Your task to perform on an android device: Show me popular videos on Youtube Image 0: 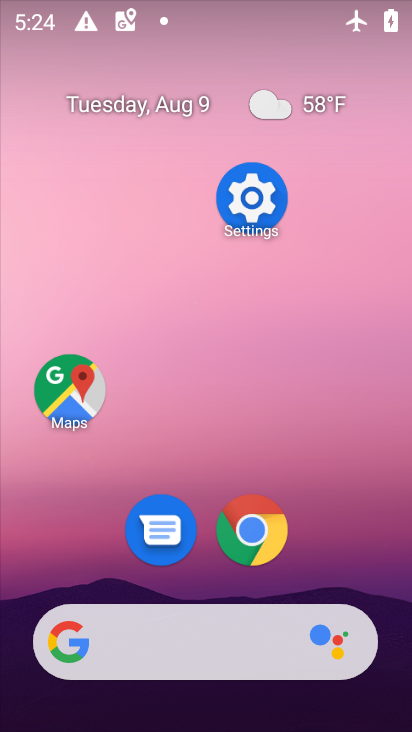
Step 0: drag from (255, 488) to (346, 131)
Your task to perform on an android device: Show me popular videos on Youtube Image 1: 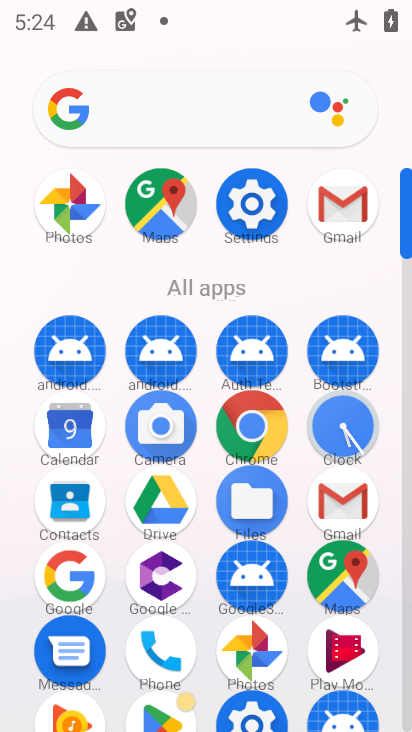
Step 1: drag from (284, 676) to (343, 143)
Your task to perform on an android device: Show me popular videos on Youtube Image 2: 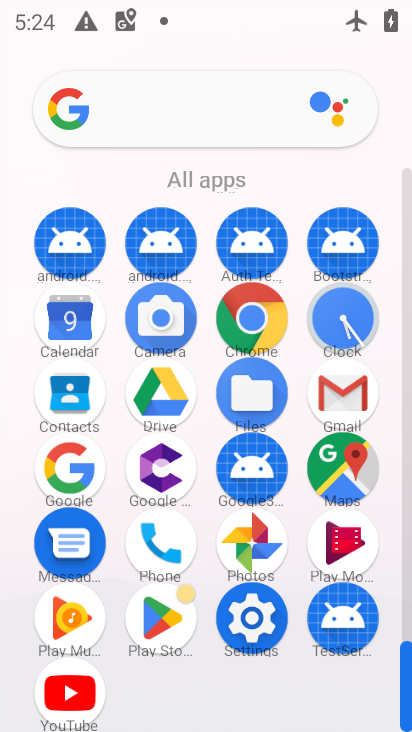
Step 2: click (56, 675)
Your task to perform on an android device: Show me popular videos on Youtube Image 3: 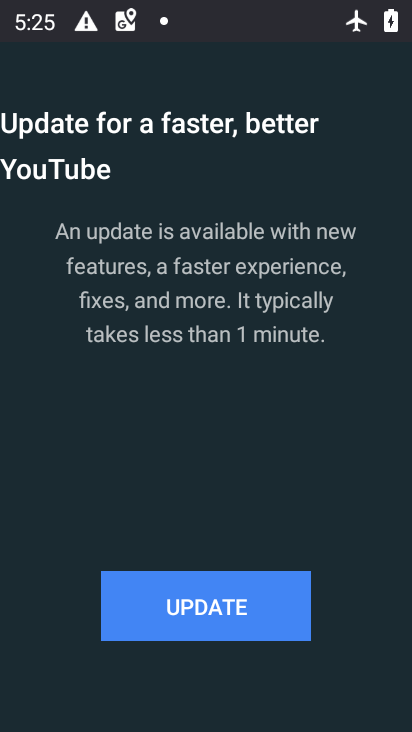
Step 3: click (228, 624)
Your task to perform on an android device: Show me popular videos on Youtube Image 4: 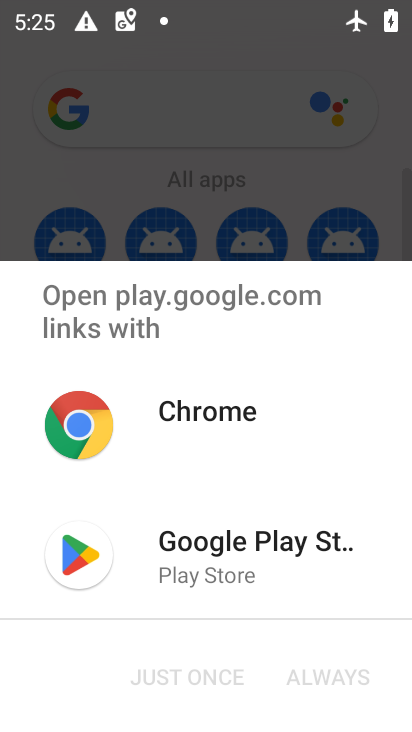
Step 4: click (186, 570)
Your task to perform on an android device: Show me popular videos on Youtube Image 5: 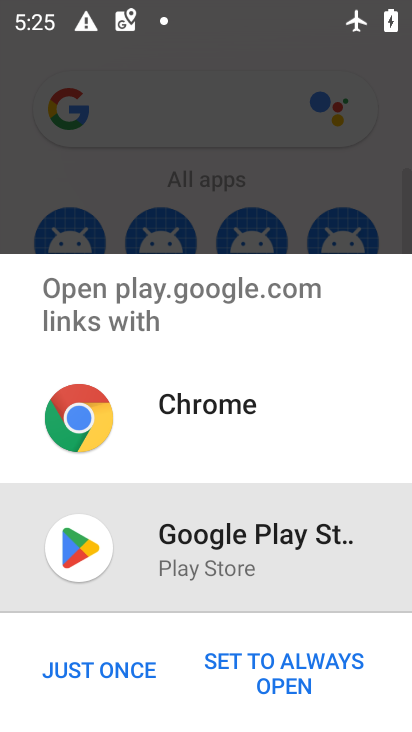
Step 5: click (201, 523)
Your task to perform on an android device: Show me popular videos on Youtube Image 6: 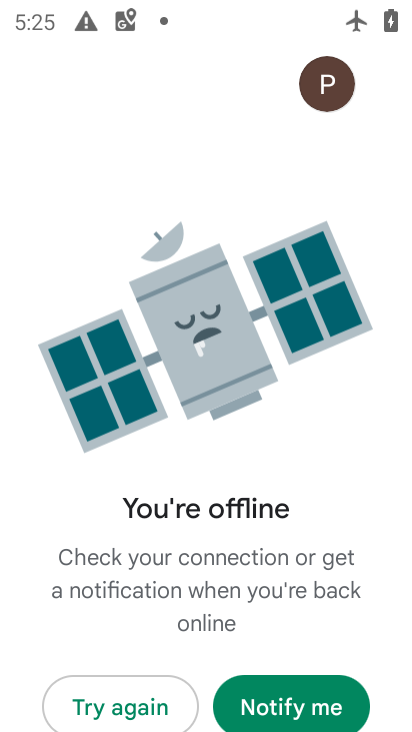
Step 6: task complete